Your task to perform on an android device: Go to battery settings Image 0: 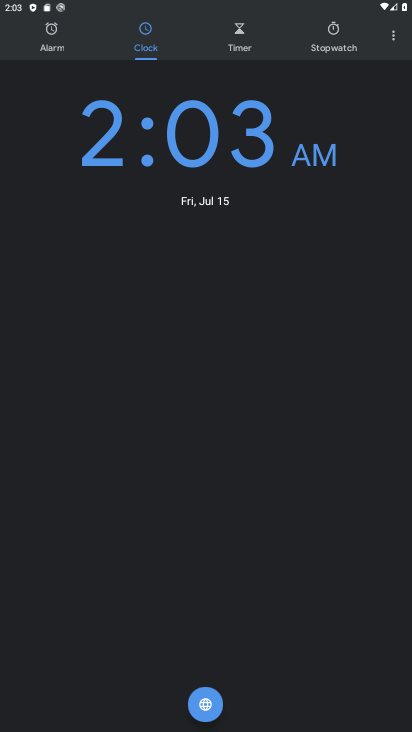
Step 0: press home button
Your task to perform on an android device: Go to battery settings Image 1: 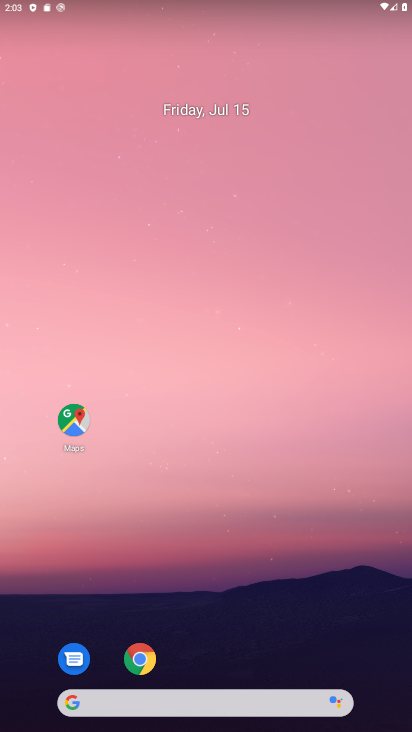
Step 1: drag from (220, 612) to (272, 229)
Your task to perform on an android device: Go to battery settings Image 2: 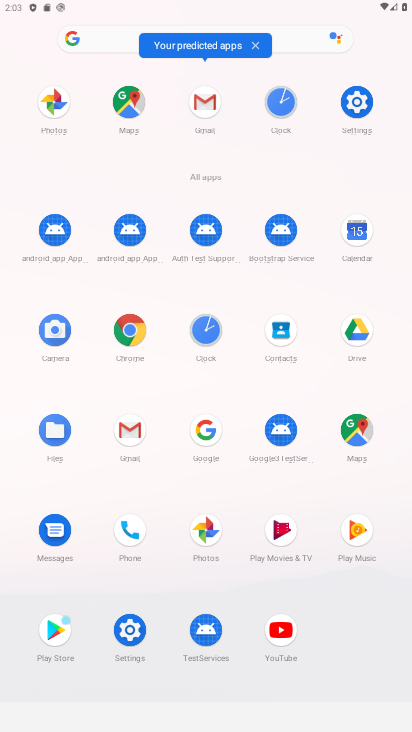
Step 2: click (368, 91)
Your task to perform on an android device: Go to battery settings Image 3: 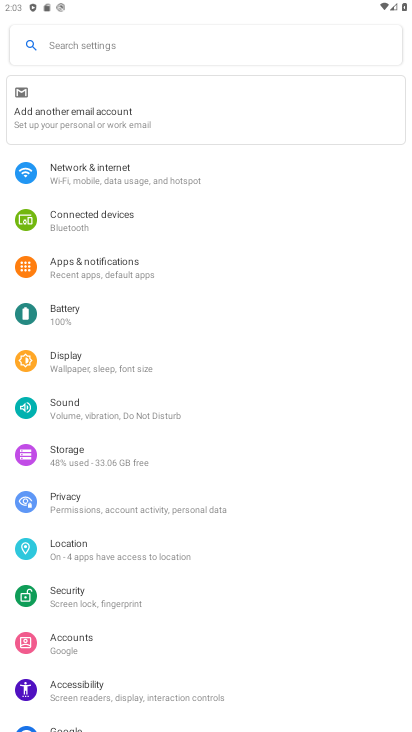
Step 3: click (111, 323)
Your task to perform on an android device: Go to battery settings Image 4: 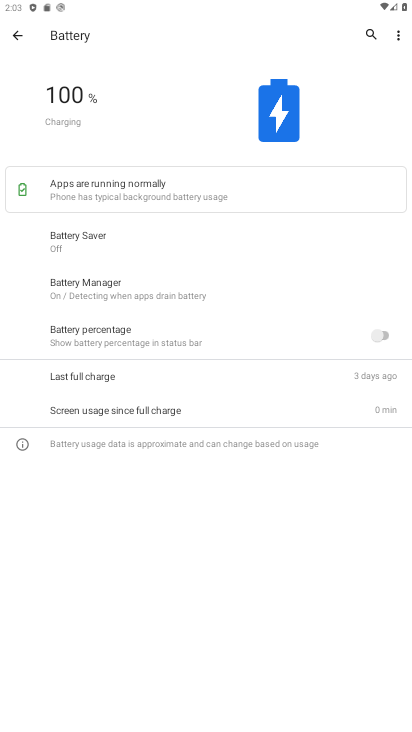
Step 4: task complete